Your task to perform on an android device: Find coffee shops on Maps Image 0: 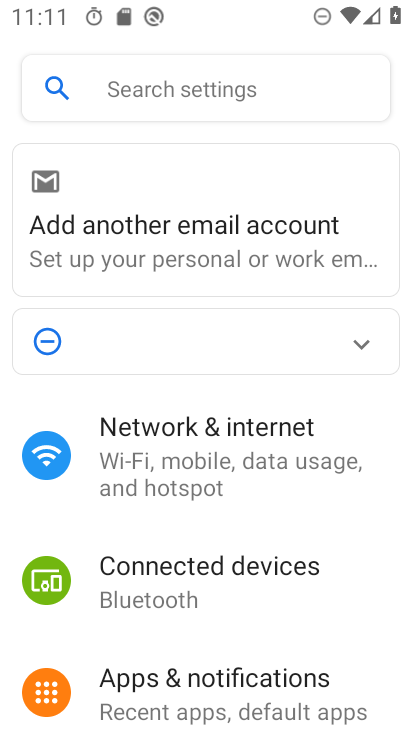
Step 0: press home button
Your task to perform on an android device: Find coffee shops on Maps Image 1: 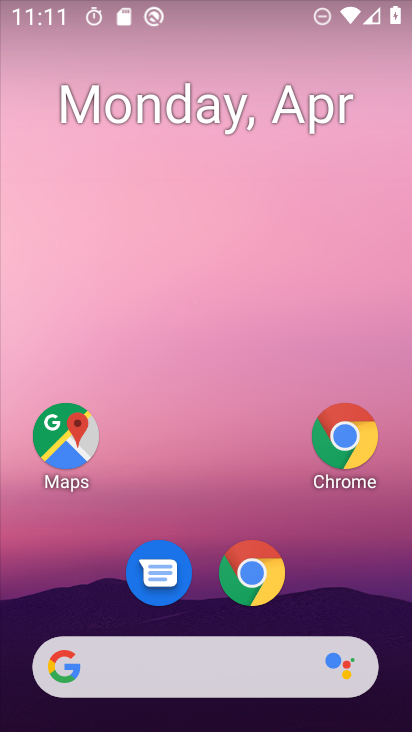
Step 1: click (83, 435)
Your task to perform on an android device: Find coffee shops on Maps Image 2: 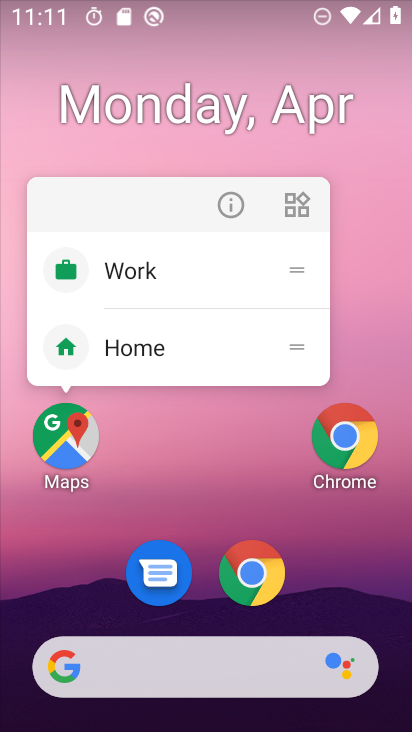
Step 2: click (83, 434)
Your task to perform on an android device: Find coffee shops on Maps Image 3: 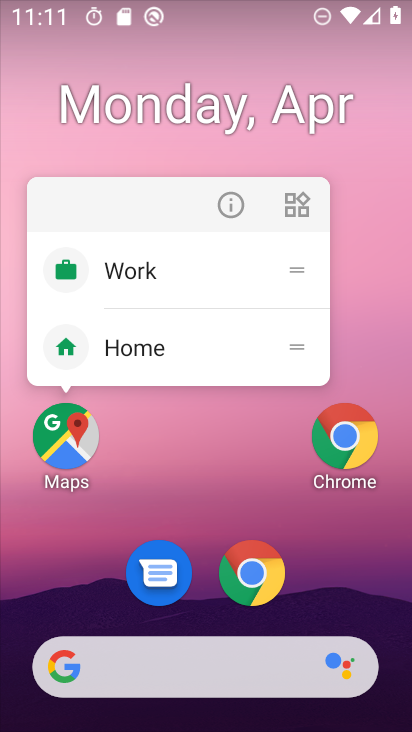
Step 3: click (83, 433)
Your task to perform on an android device: Find coffee shops on Maps Image 4: 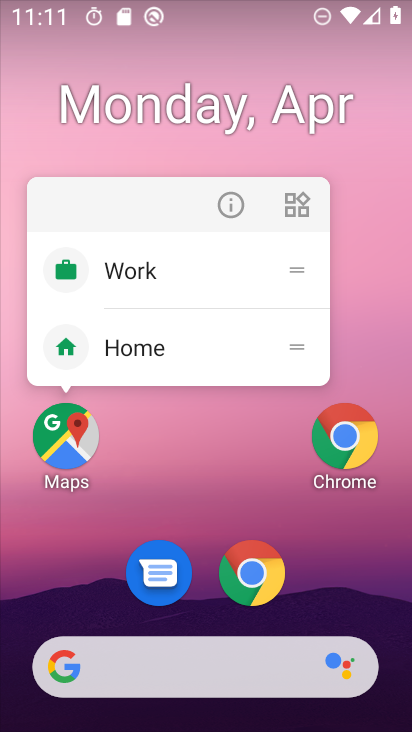
Step 4: click (83, 433)
Your task to perform on an android device: Find coffee shops on Maps Image 5: 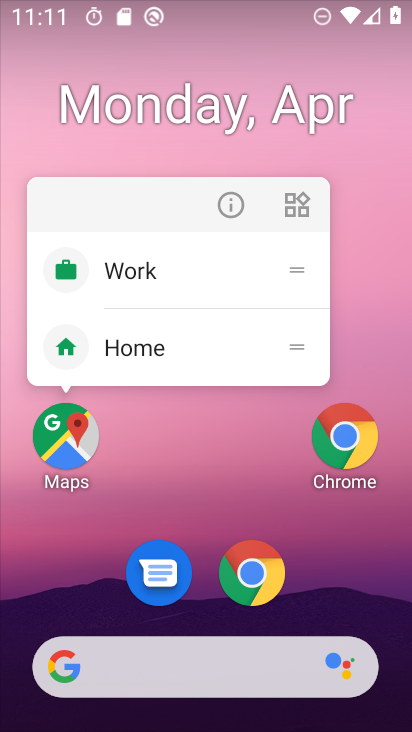
Step 5: click (83, 432)
Your task to perform on an android device: Find coffee shops on Maps Image 6: 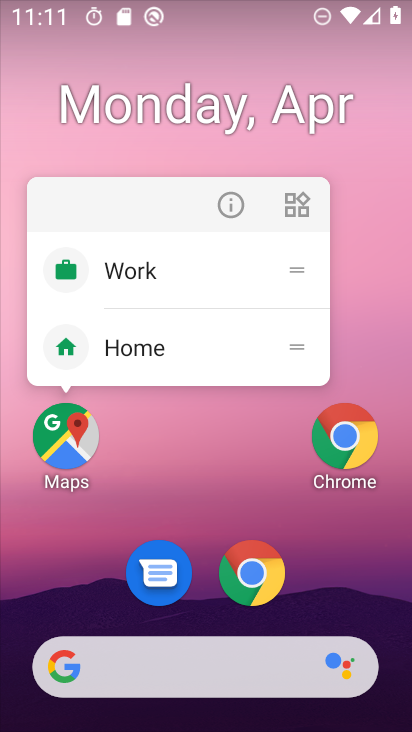
Step 6: click (49, 450)
Your task to perform on an android device: Find coffee shops on Maps Image 7: 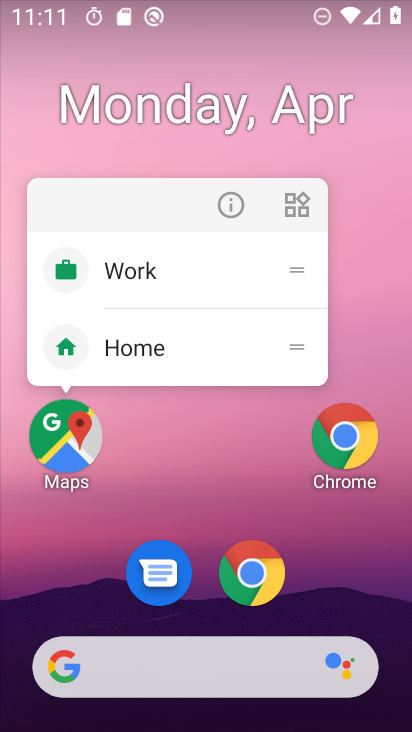
Step 7: click (49, 450)
Your task to perform on an android device: Find coffee shops on Maps Image 8: 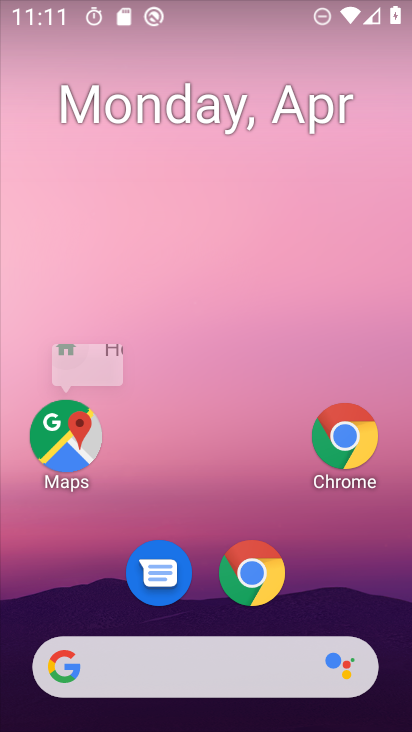
Step 8: click (49, 450)
Your task to perform on an android device: Find coffee shops on Maps Image 9: 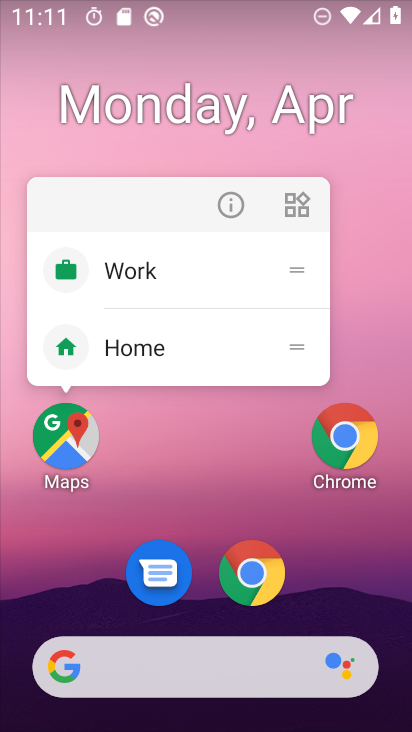
Step 9: click (49, 450)
Your task to perform on an android device: Find coffee shops on Maps Image 10: 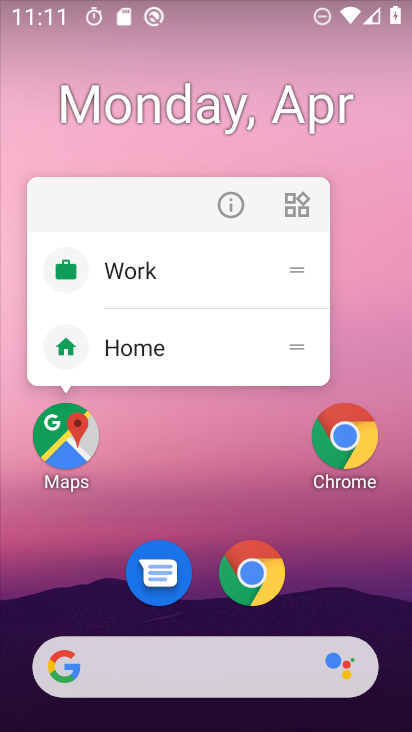
Step 10: click (49, 449)
Your task to perform on an android device: Find coffee shops on Maps Image 11: 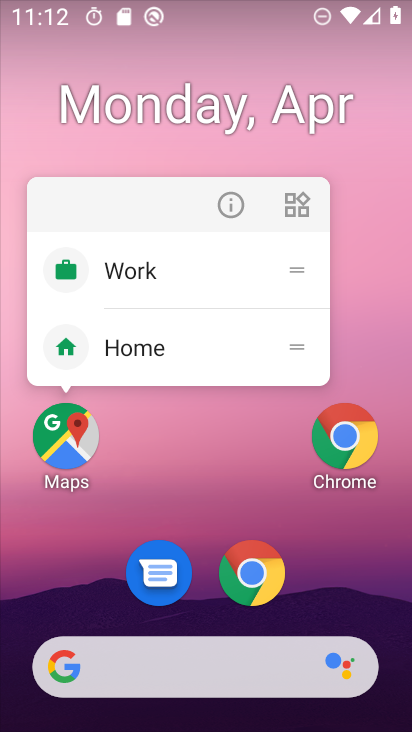
Step 11: click (50, 449)
Your task to perform on an android device: Find coffee shops on Maps Image 12: 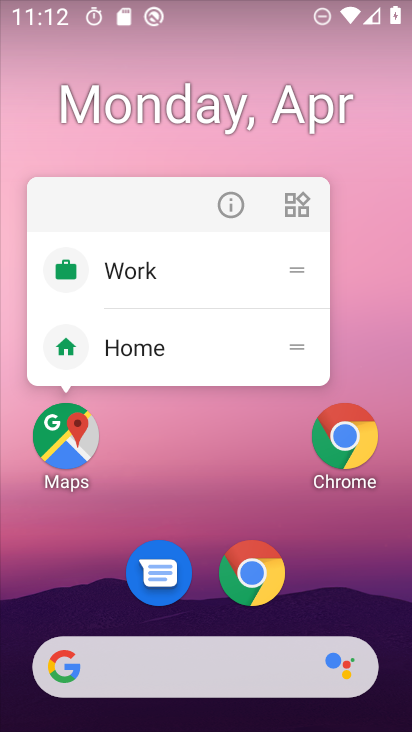
Step 12: click (50, 449)
Your task to perform on an android device: Find coffee shops on Maps Image 13: 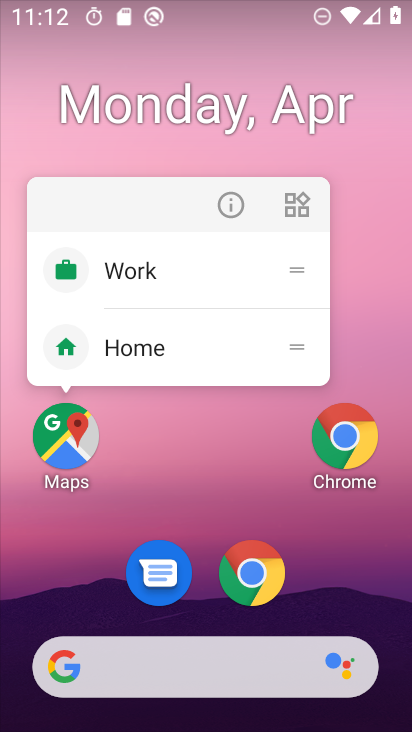
Step 13: click (62, 425)
Your task to perform on an android device: Find coffee shops on Maps Image 14: 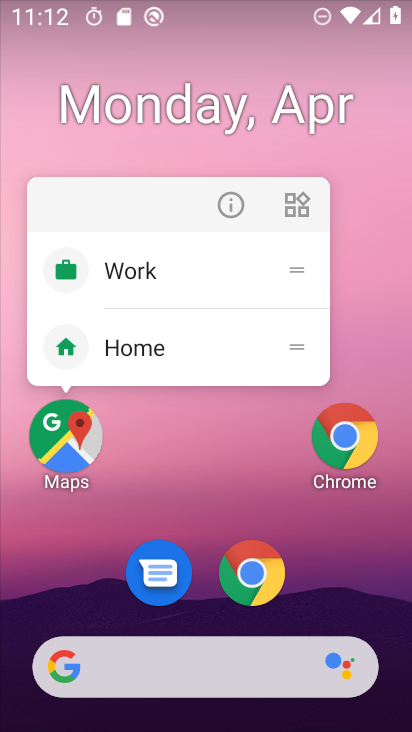
Step 14: click (62, 425)
Your task to perform on an android device: Find coffee shops on Maps Image 15: 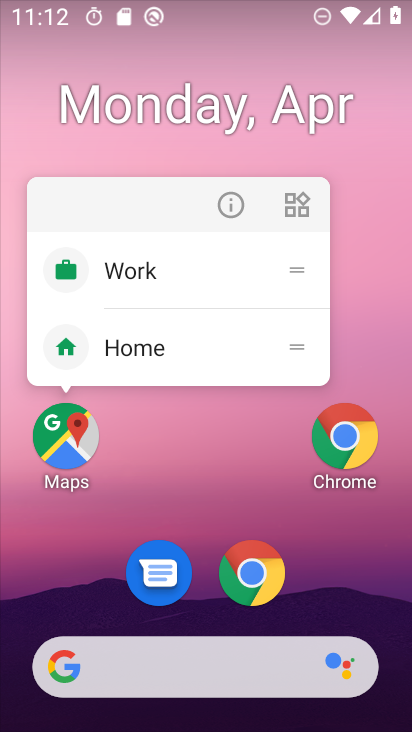
Step 15: click (96, 447)
Your task to perform on an android device: Find coffee shops on Maps Image 16: 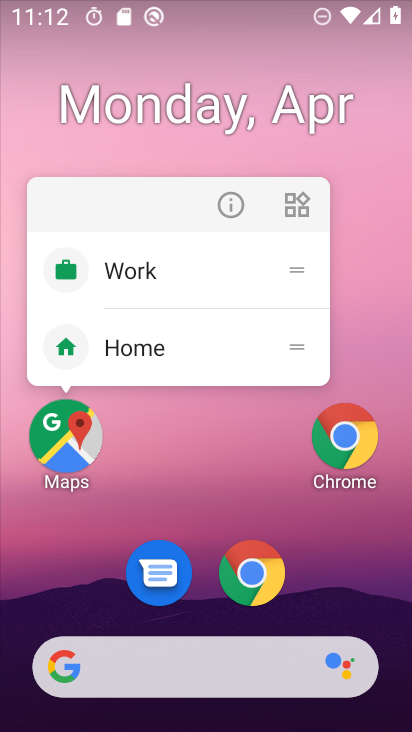
Step 16: click (94, 442)
Your task to perform on an android device: Find coffee shops on Maps Image 17: 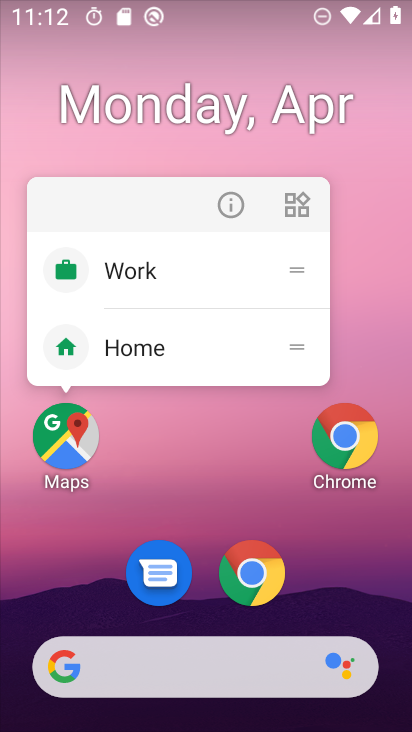
Step 17: click (57, 442)
Your task to perform on an android device: Find coffee shops on Maps Image 18: 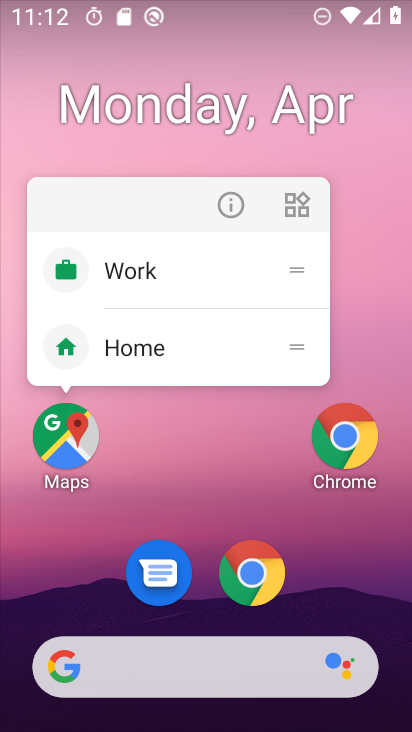
Step 18: click (80, 441)
Your task to perform on an android device: Find coffee shops on Maps Image 19: 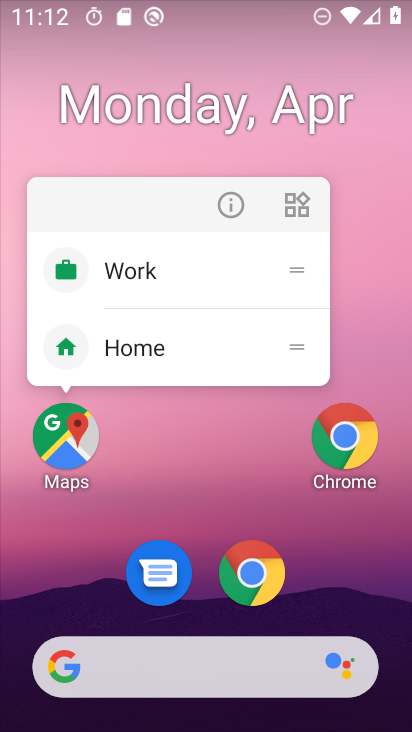
Step 19: click (80, 440)
Your task to perform on an android device: Find coffee shops on Maps Image 20: 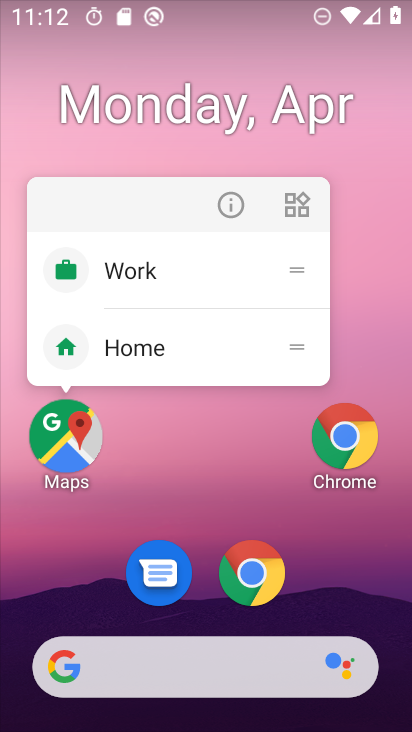
Step 20: click (80, 439)
Your task to perform on an android device: Find coffee shops on Maps Image 21: 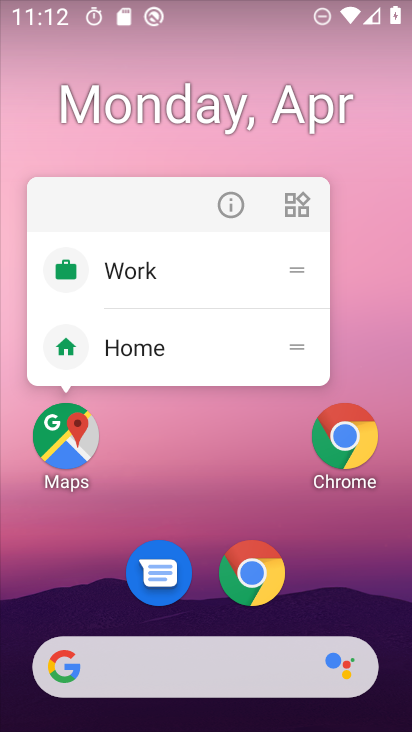
Step 21: click (54, 426)
Your task to perform on an android device: Find coffee shops on Maps Image 22: 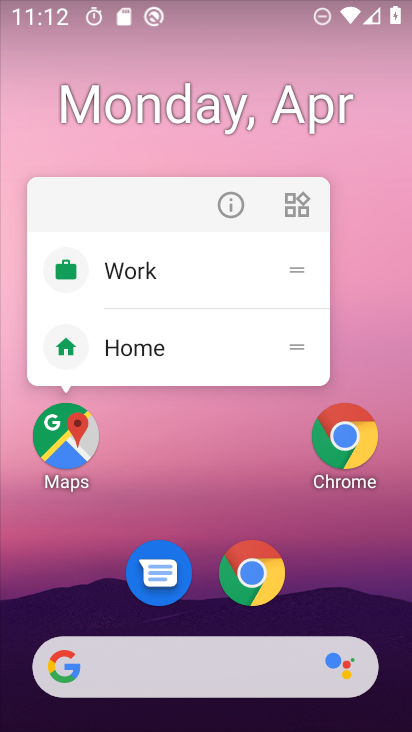
Step 22: click (87, 427)
Your task to perform on an android device: Find coffee shops on Maps Image 23: 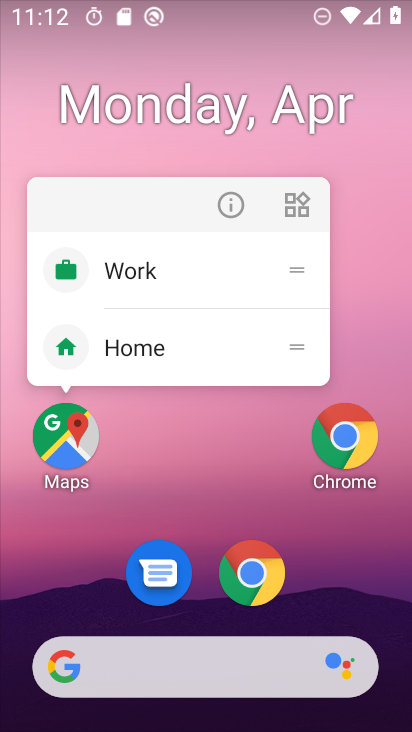
Step 23: click (84, 425)
Your task to perform on an android device: Find coffee shops on Maps Image 24: 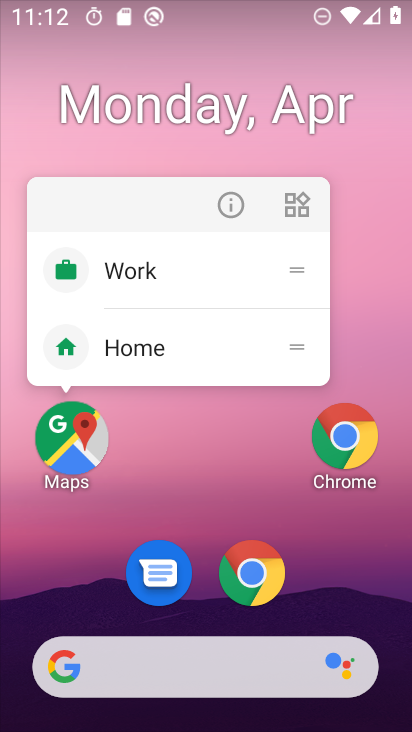
Step 24: click (92, 428)
Your task to perform on an android device: Find coffee shops on Maps Image 25: 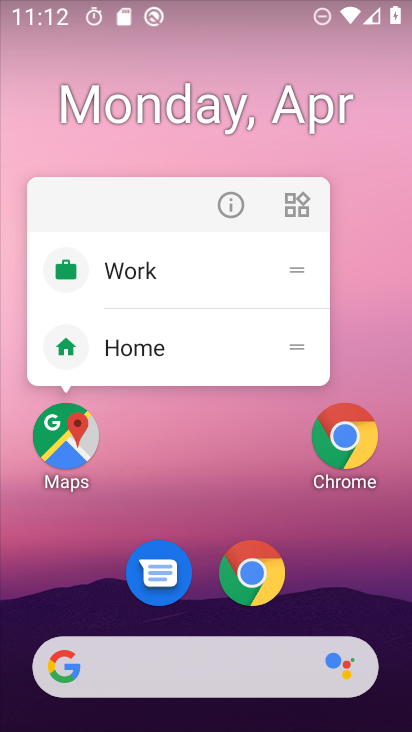
Step 25: click (111, 437)
Your task to perform on an android device: Find coffee shops on Maps Image 26: 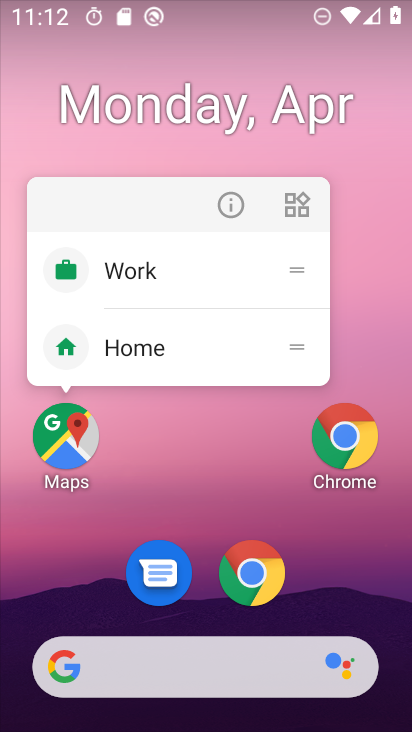
Step 26: click (217, 442)
Your task to perform on an android device: Find coffee shops on Maps Image 27: 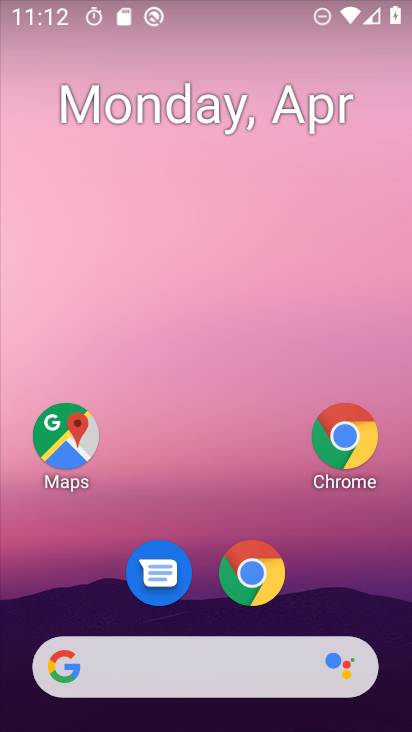
Step 27: click (41, 439)
Your task to perform on an android device: Find coffee shops on Maps Image 28: 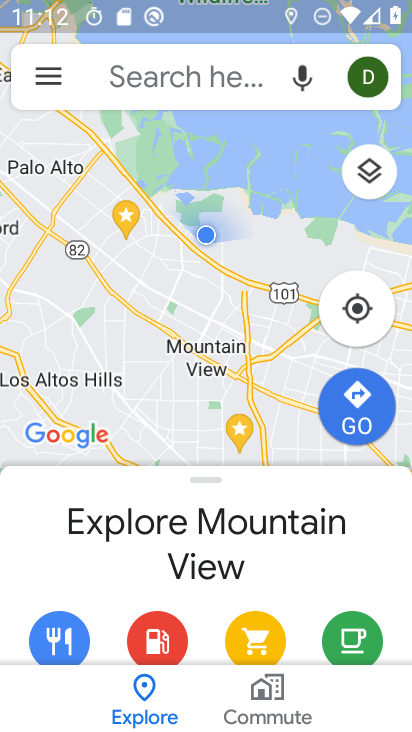
Step 28: click (109, 69)
Your task to perform on an android device: Find coffee shops on Maps Image 29: 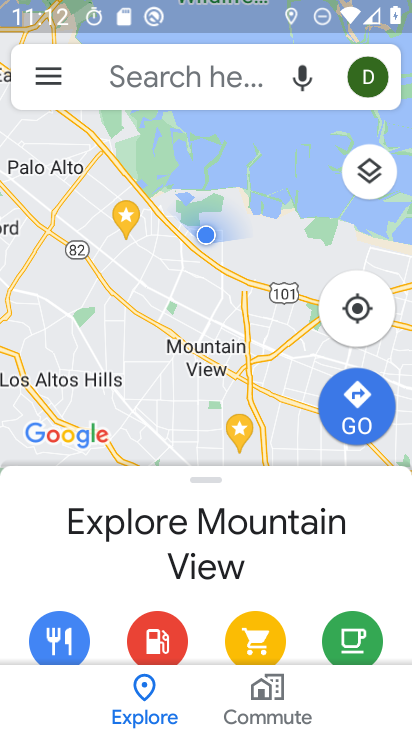
Step 29: click (207, 67)
Your task to perform on an android device: Find coffee shops on Maps Image 30: 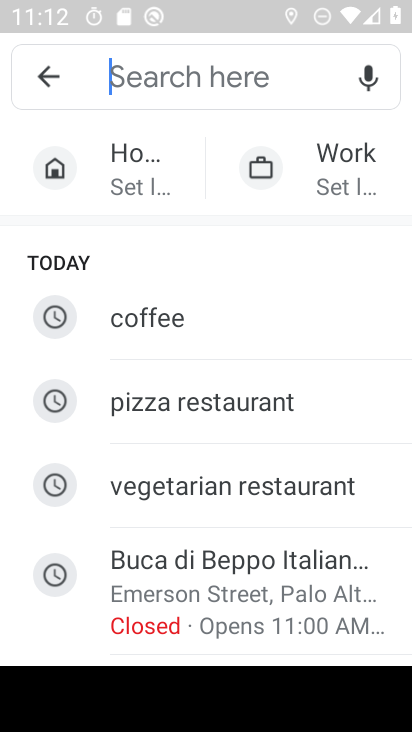
Step 30: click (182, 327)
Your task to perform on an android device: Find coffee shops on Maps Image 31: 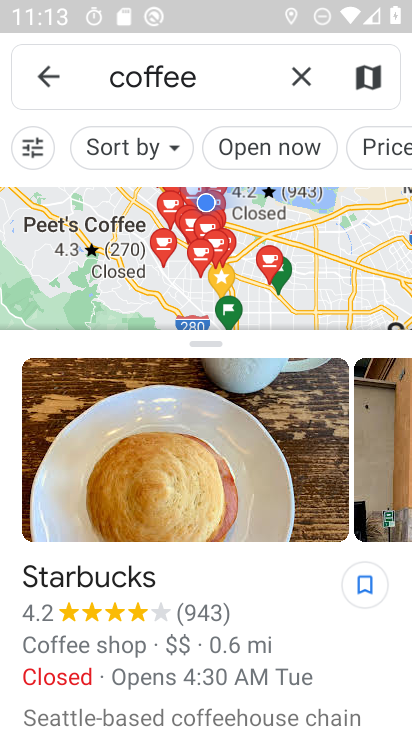
Step 31: task complete